Your task to perform on an android device: manage bookmarks in the chrome app Image 0: 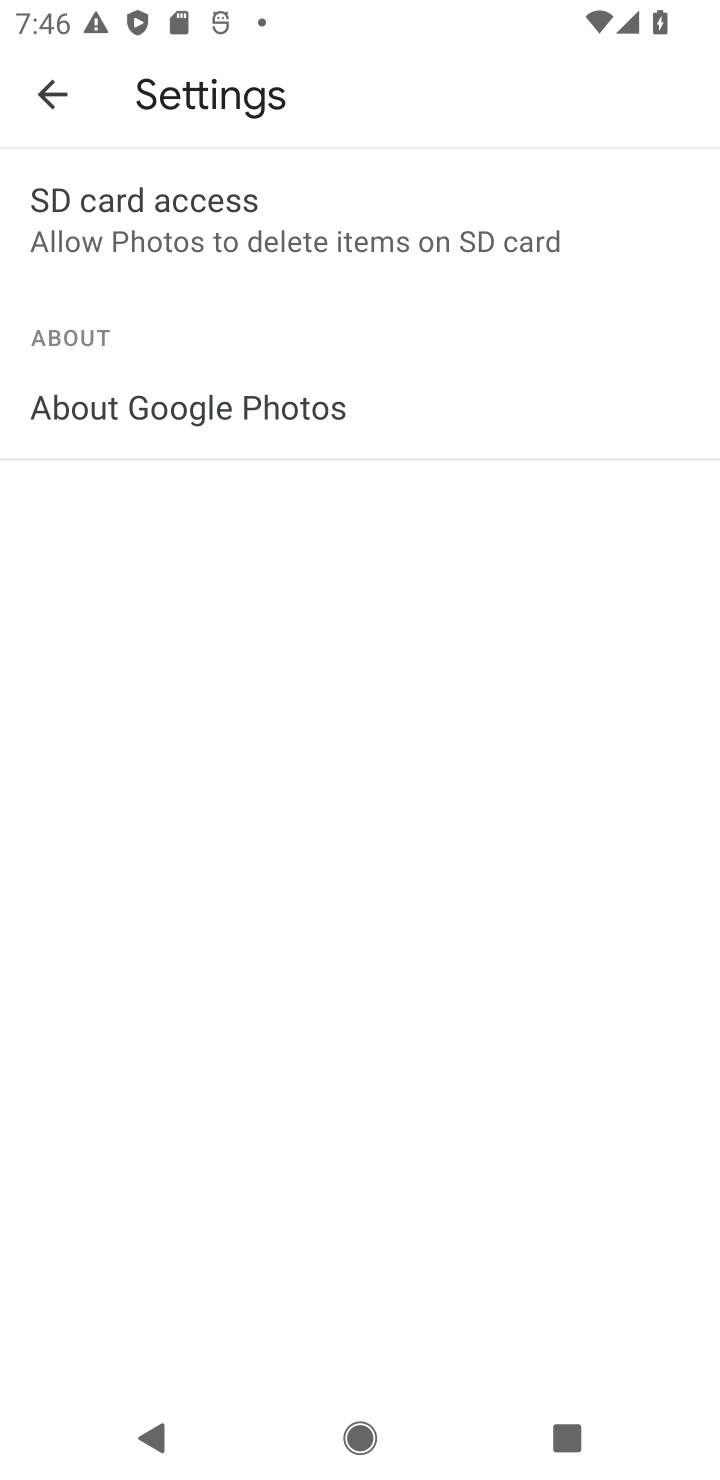
Step 0: press home button
Your task to perform on an android device: manage bookmarks in the chrome app Image 1: 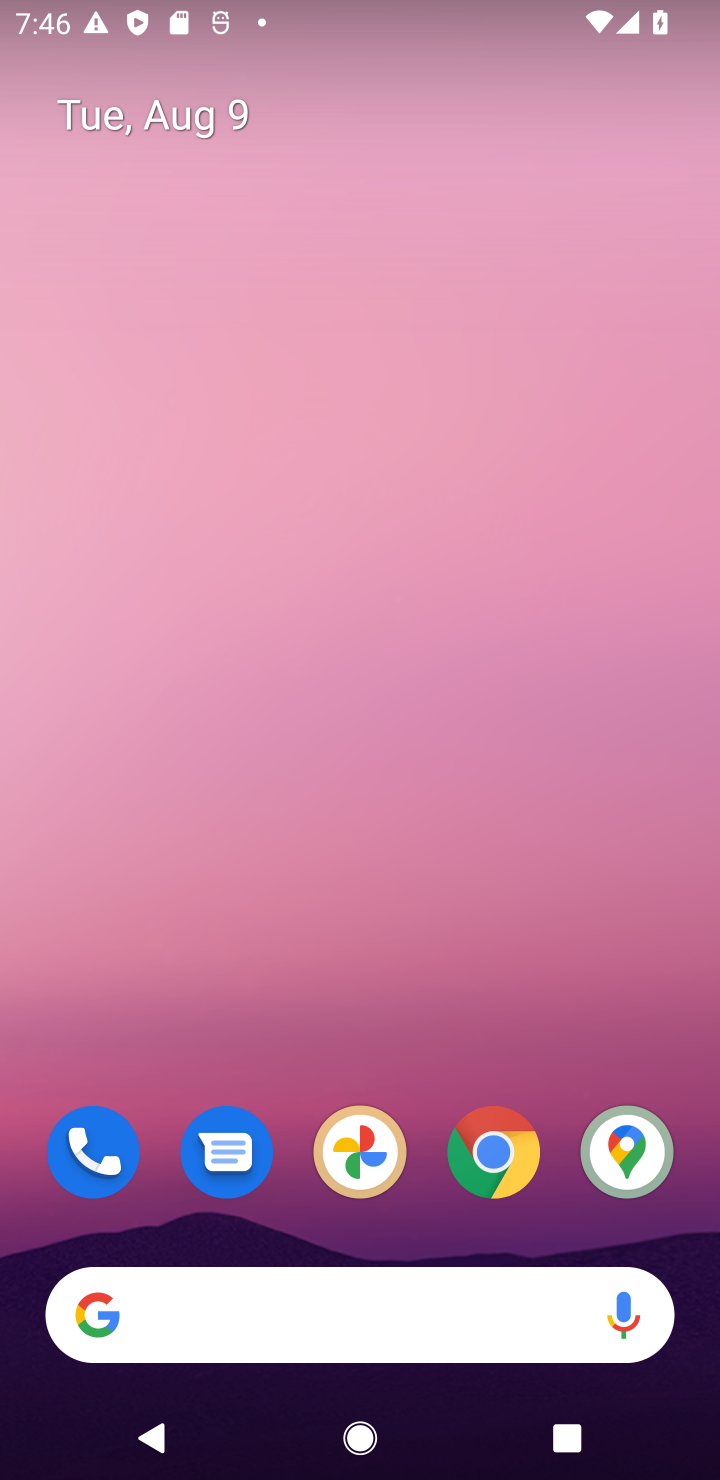
Step 1: click (482, 1153)
Your task to perform on an android device: manage bookmarks in the chrome app Image 2: 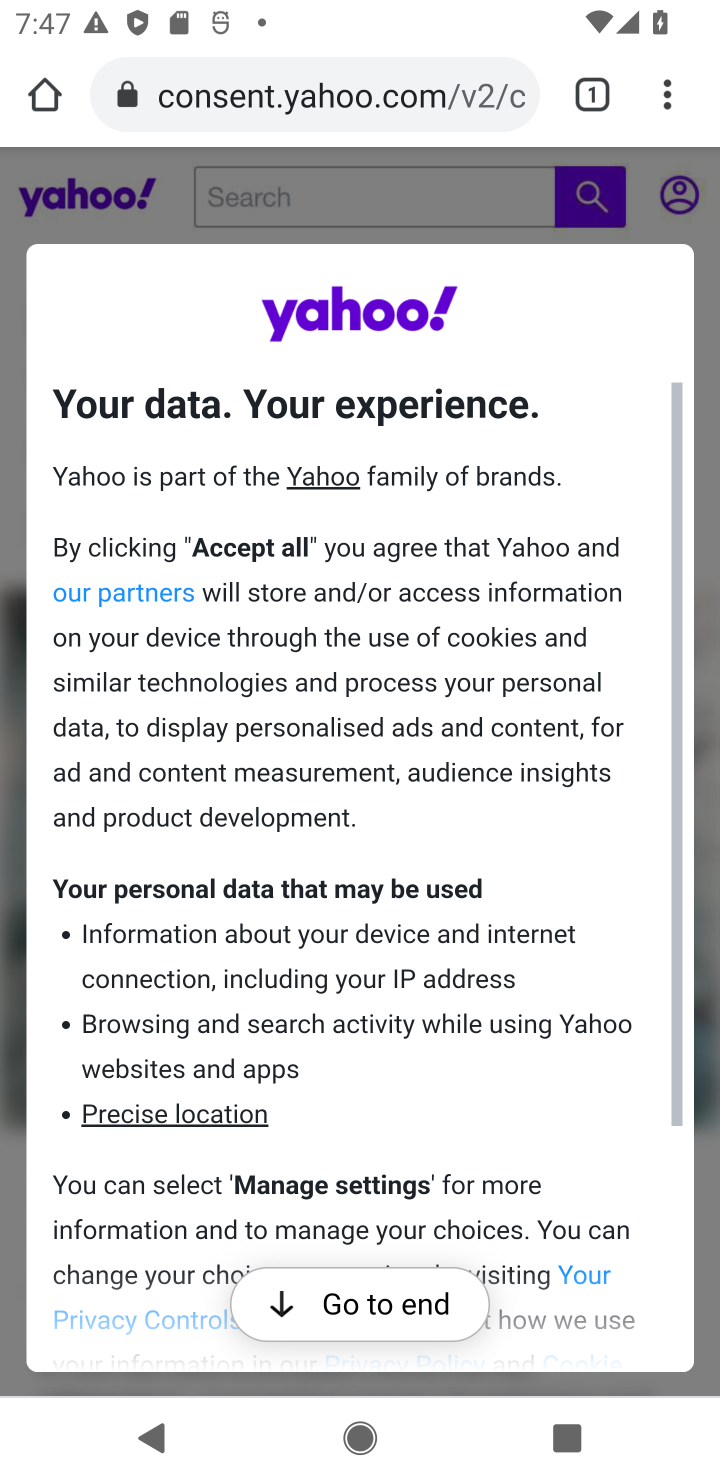
Step 2: click (686, 105)
Your task to perform on an android device: manage bookmarks in the chrome app Image 3: 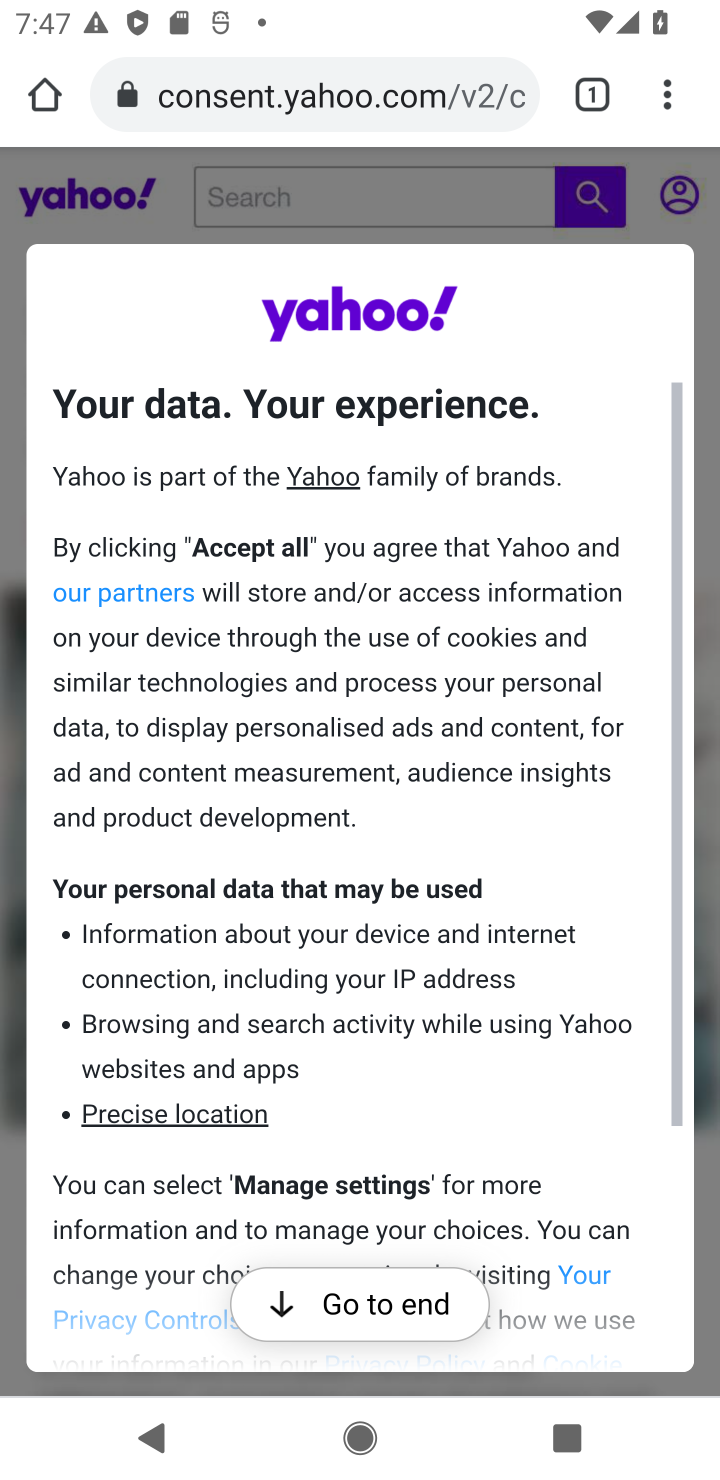
Step 3: click (686, 105)
Your task to perform on an android device: manage bookmarks in the chrome app Image 4: 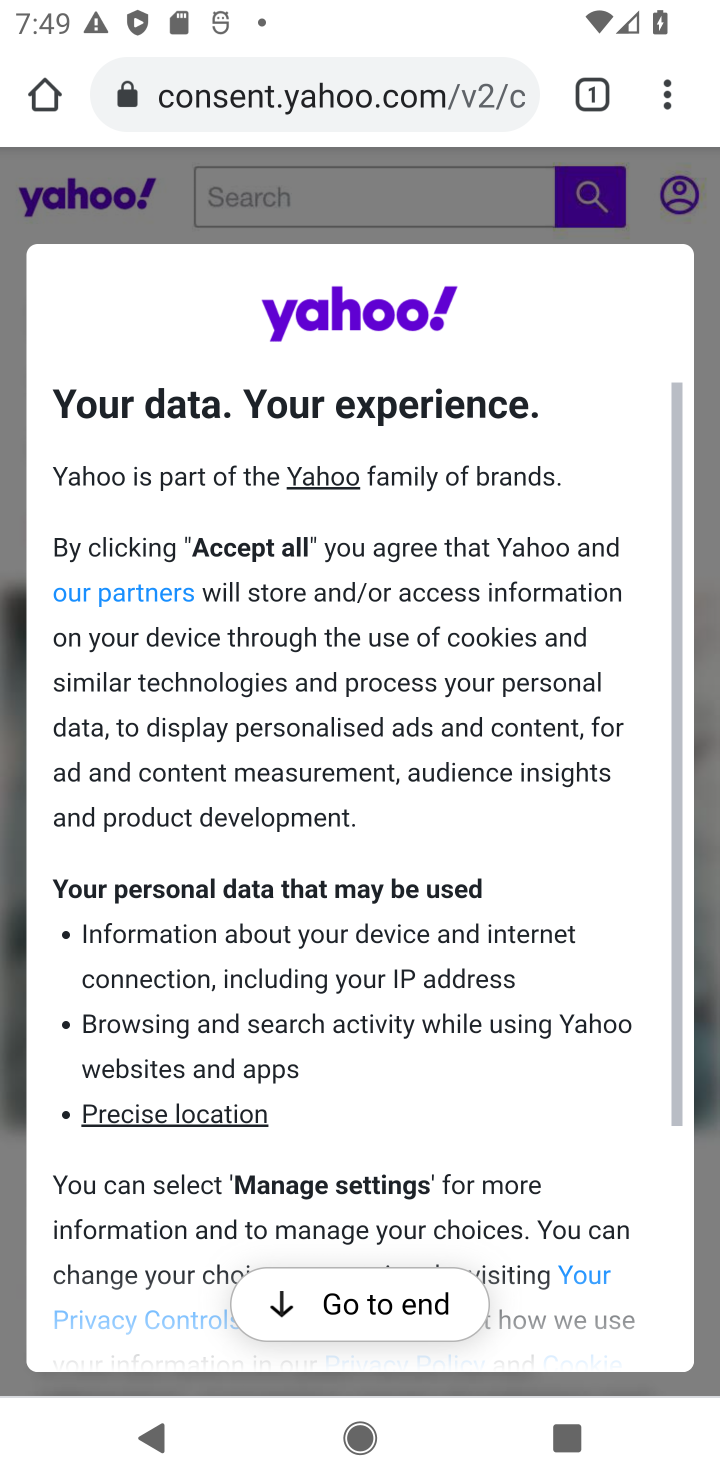
Step 4: click (686, 94)
Your task to perform on an android device: manage bookmarks in the chrome app Image 5: 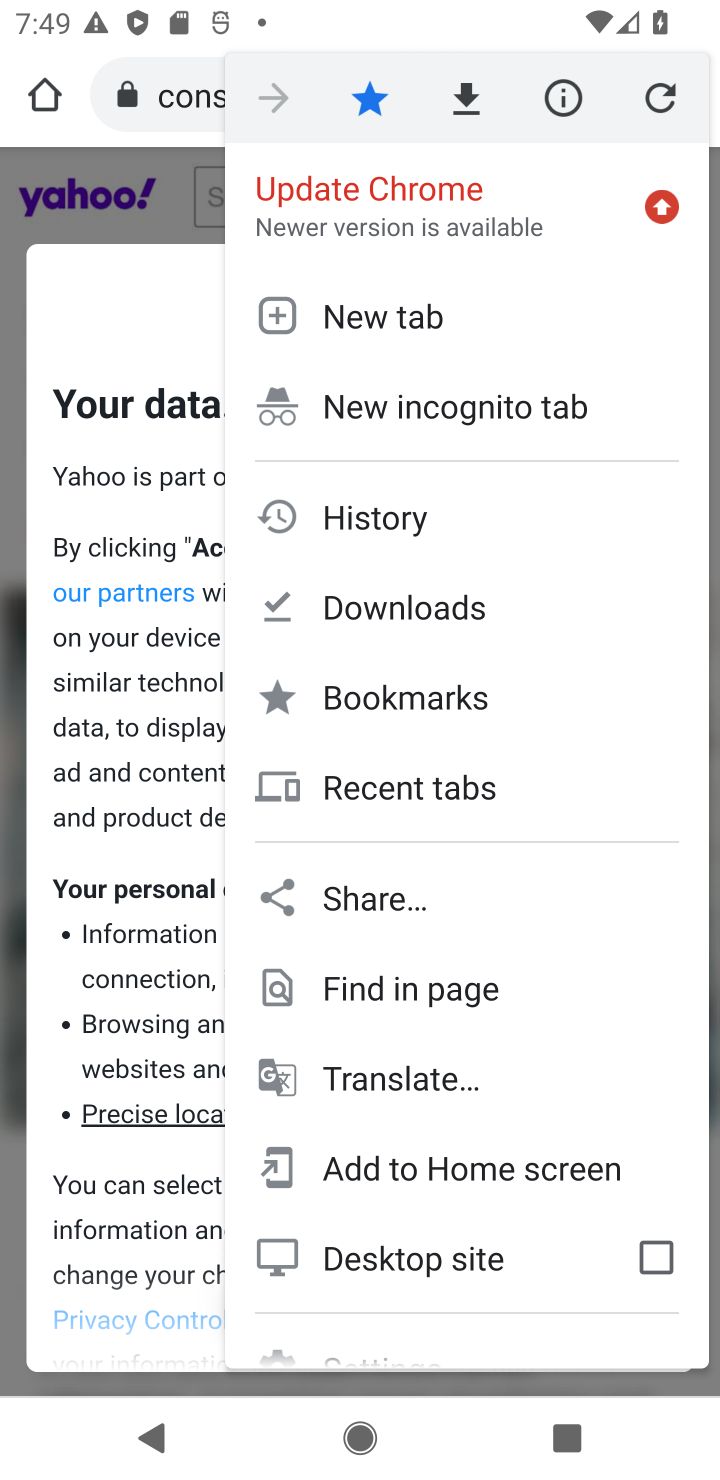
Step 5: click (376, 706)
Your task to perform on an android device: manage bookmarks in the chrome app Image 6: 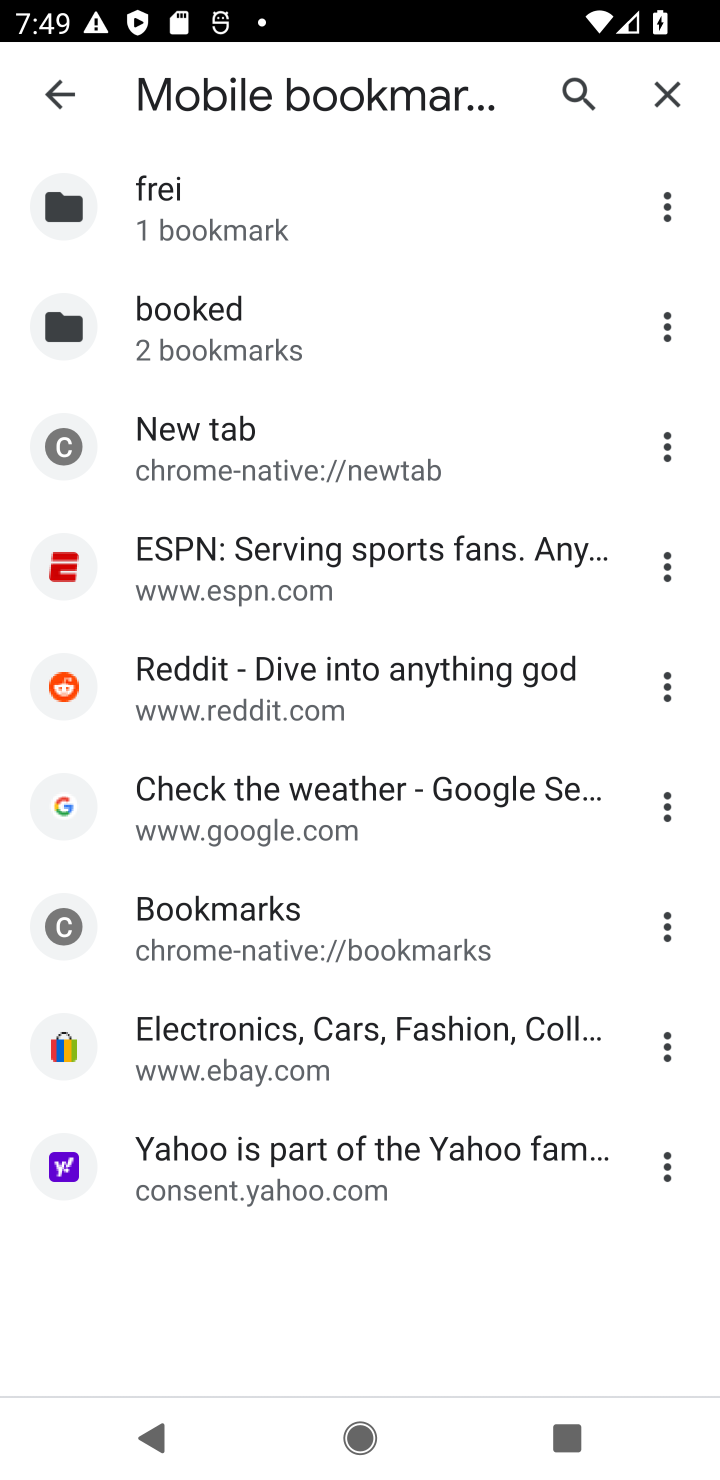
Step 6: click (399, 663)
Your task to perform on an android device: manage bookmarks in the chrome app Image 7: 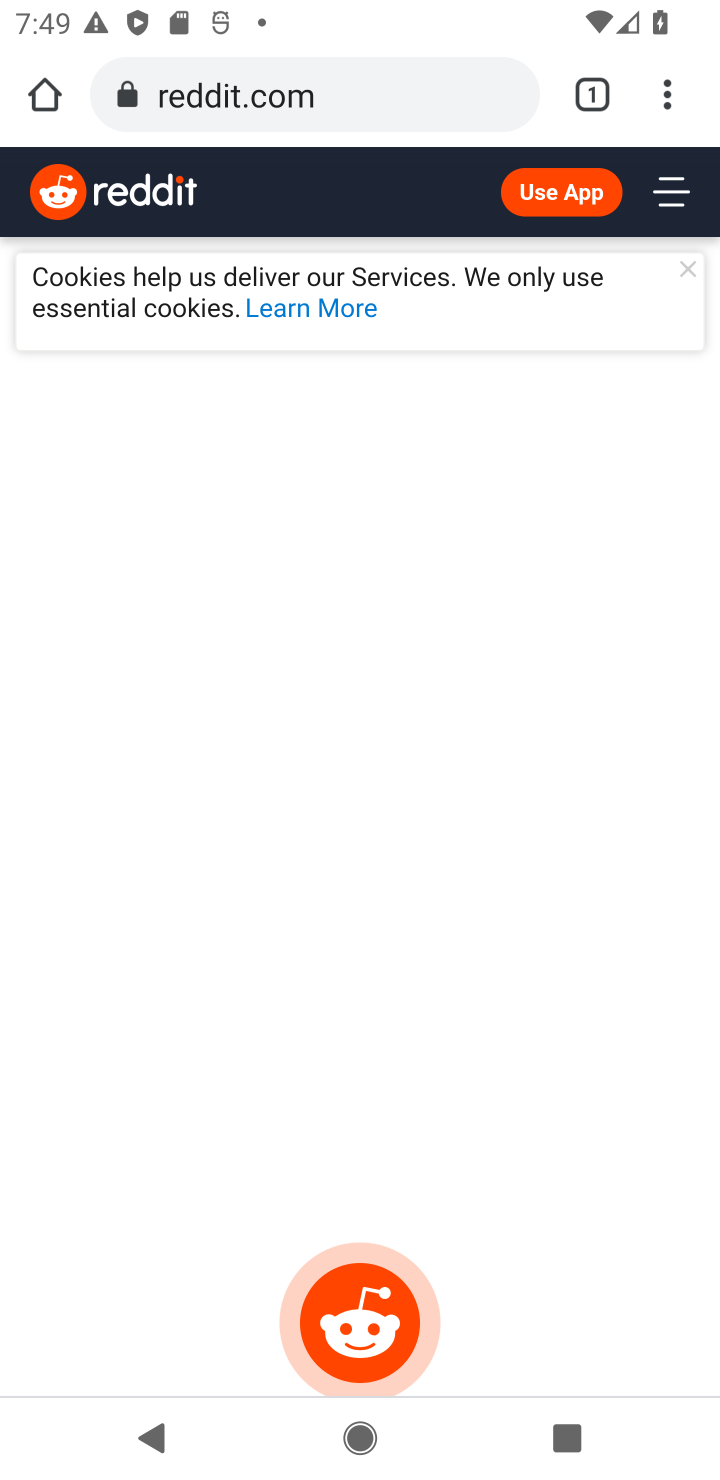
Step 7: click (675, 98)
Your task to perform on an android device: manage bookmarks in the chrome app Image 8: 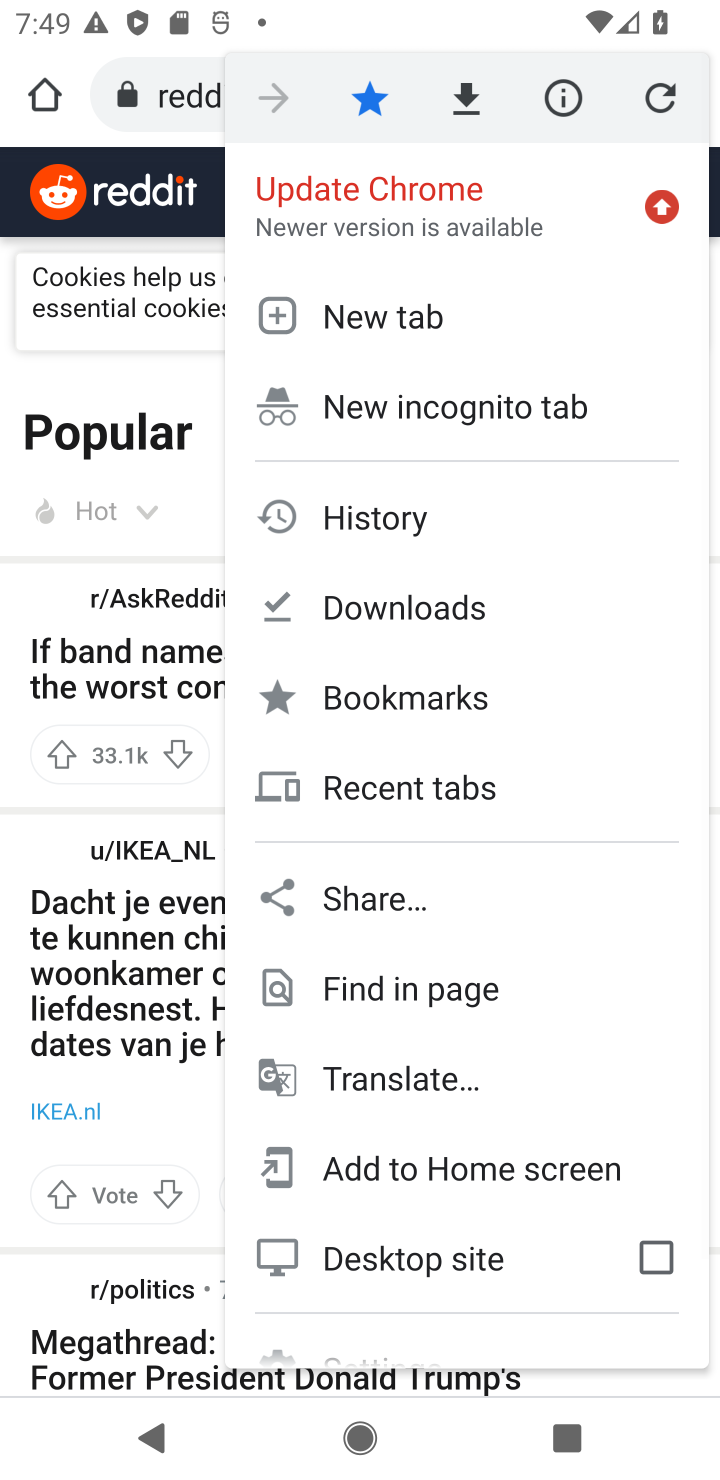
Step 8: task complete